Your task to perform on an android device: turn off javascript in the chrome app Image 0: 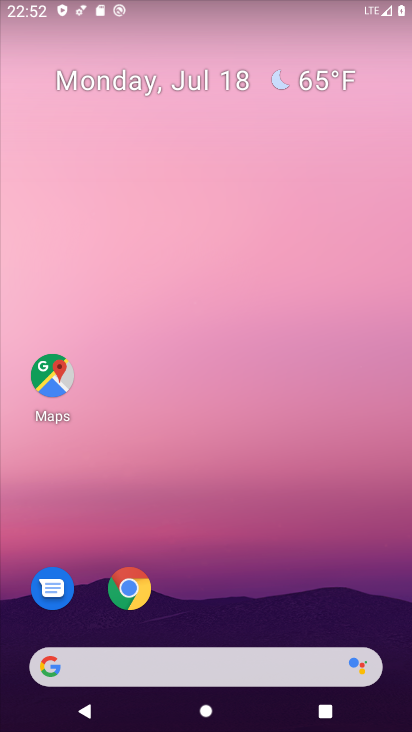
Step 0: press home button
Your task to perform on an android device: turn off javascript in the chrome app Image 1: 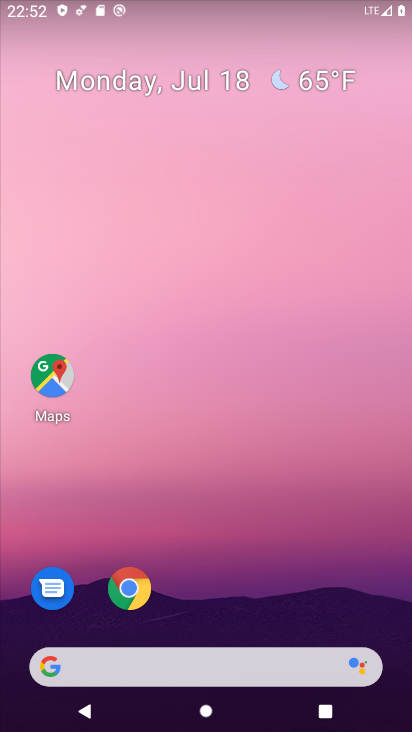
Step 1: click (122, 587)
Your task to perform on an android device: turn off javascript in the chrome app Image 2: 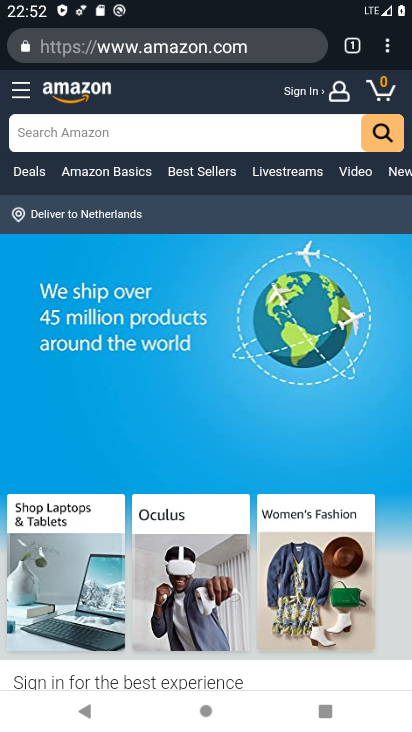
Step 2: click (384, 48)
Your task to perform on an android device: turn off javascript in the chrome app Image 3: 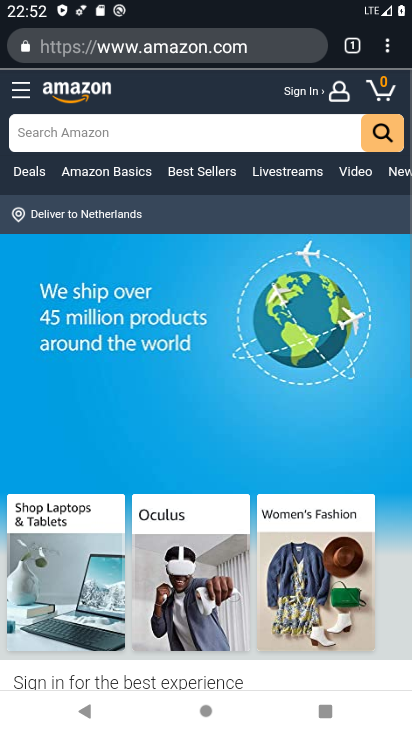
Step 3: drag from (382, 50) to (225, 542)
Your task to perform on an android device: turn off javascript in the chrome app Image 4: 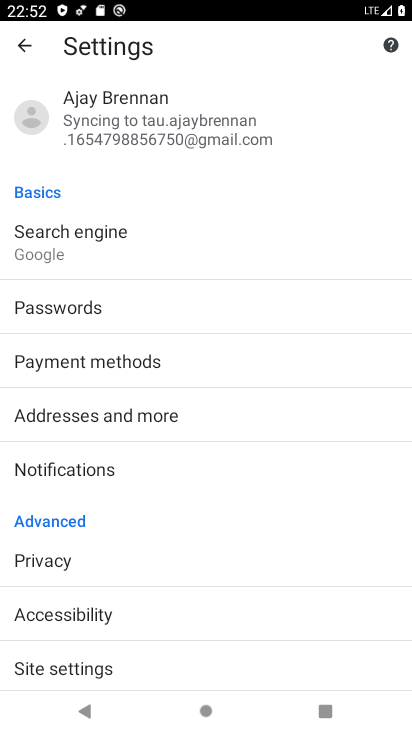
Step 4: click (39, 675)
Your task to perform on an android device: turn off javascript in the chrome app Image 5: 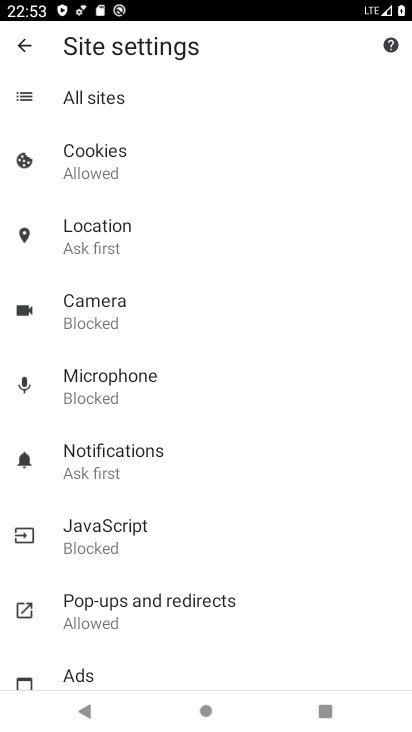
Step 5: click (109, 532)
Your task to perform on an android device: turn off javascript in the chrome app Image 6: 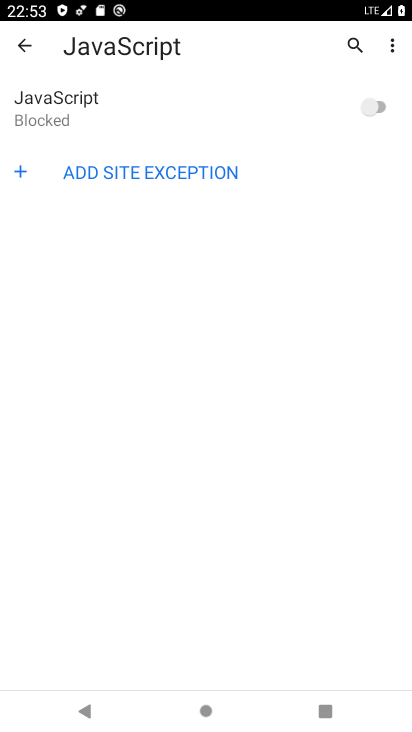
Step 6: task complete